Your task to perform on an android device: change the clock style Image 0: 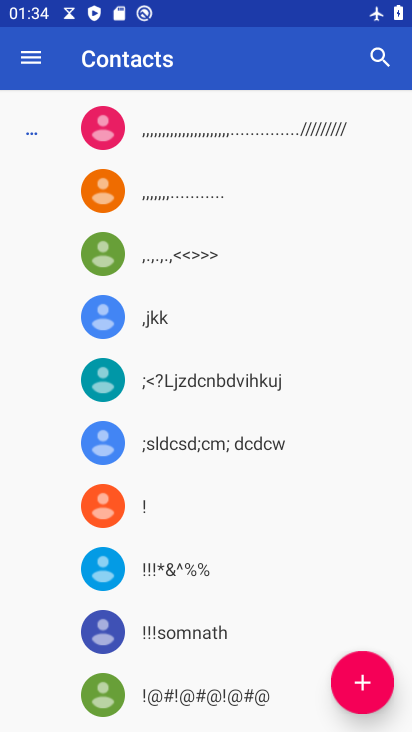
Step 0: press home button
Your task to perform on an android device: change the clock style Image 1: 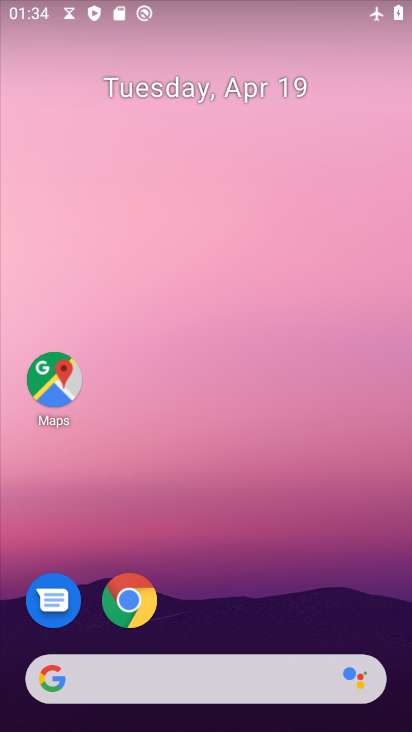
Step 1: drag from (227, 629) to (273, 10)
Your task to perform on an android device: change the clock style Image 2: 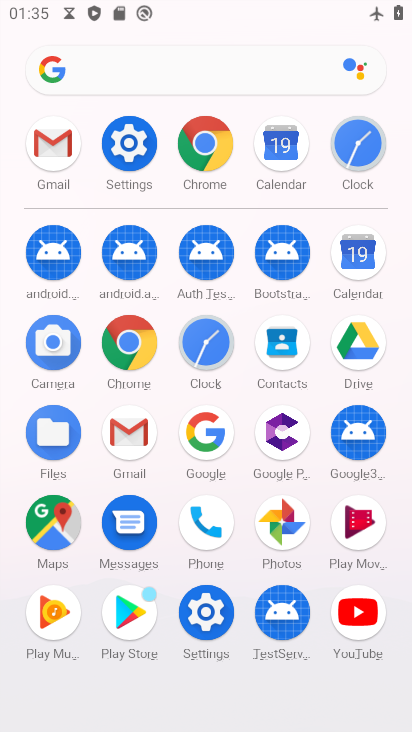
Step 2: click (200, 350)
Your task to perform on an android device: change the clock style Image 3: 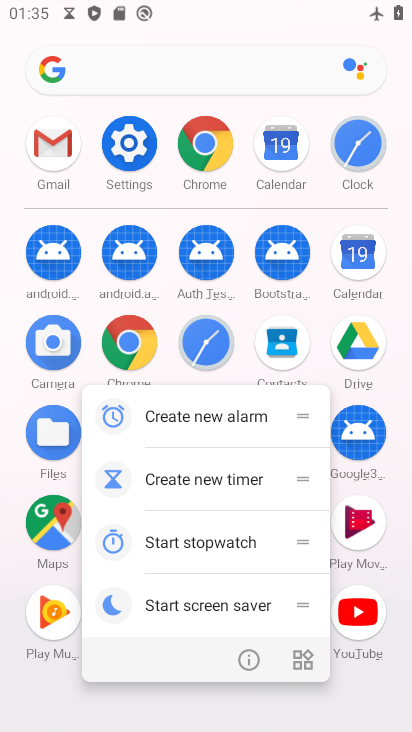
Step 3: click (202, 348)
Your task to perform on an android device: change the clock style Image 4: 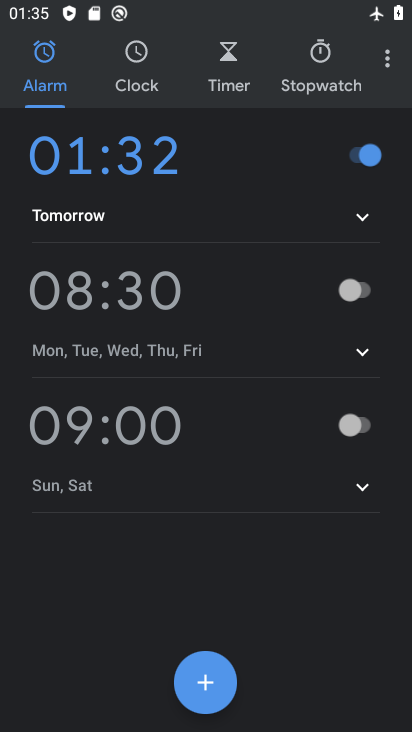
Step 4: click (381, 55)
Your task to perform on an android device: change the clock style Image 5: 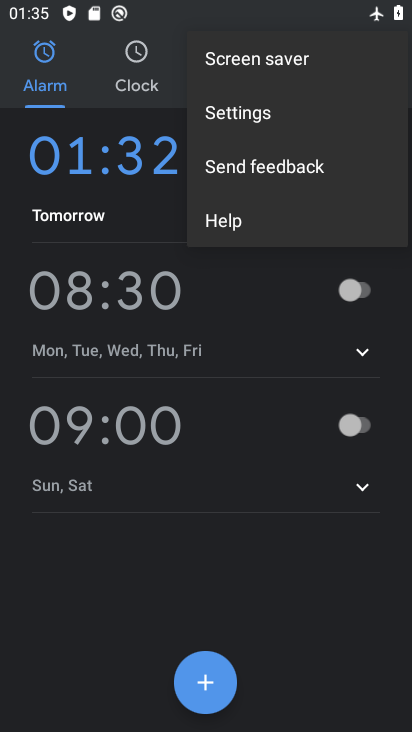
Step 5: click (264, 118)
Your task to perform on an android device: change the clock style Image 6: 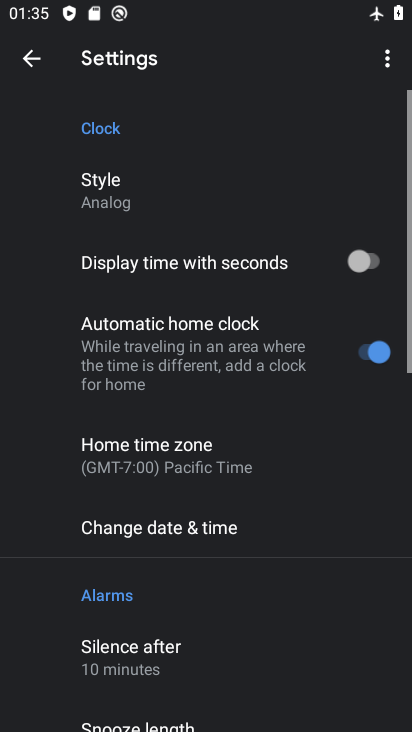
Step 6: click (133, 192)
Your task to perform on an android device: change the clock style Image 7: 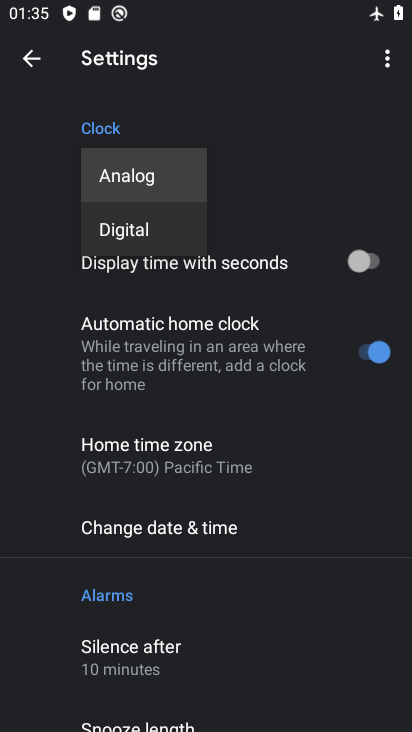
Step 7: click (127, 235)
Your task to perform on an android device: change the clock style Image 8: 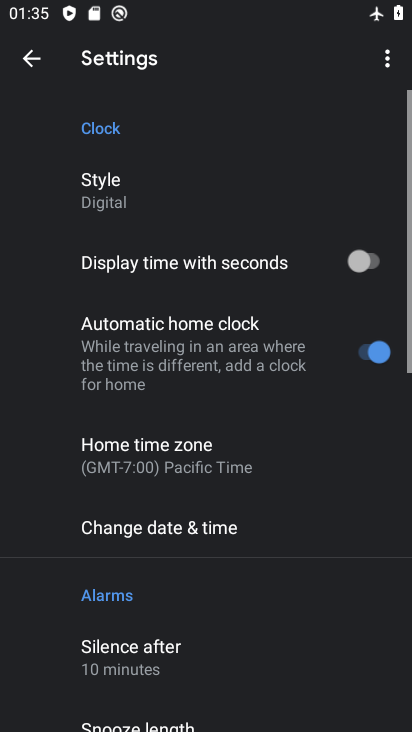
Step 8: task complete